Your task to perform on an android device: Open Android settings Image 0: 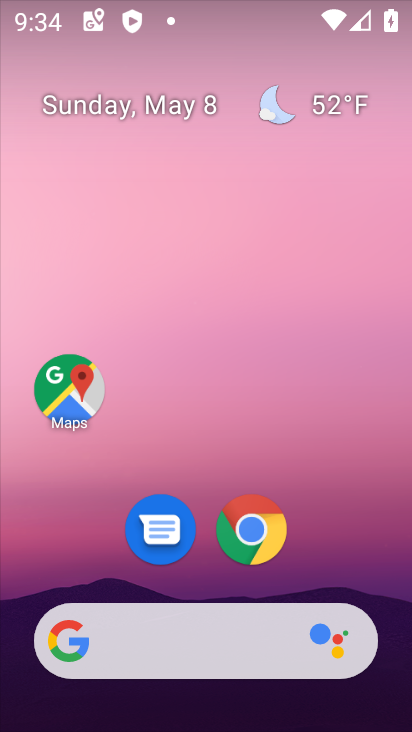
Step 0: drag from (372, 570) to (374, 121)
Your task to perform on an android device: Open Android settings Image 1: 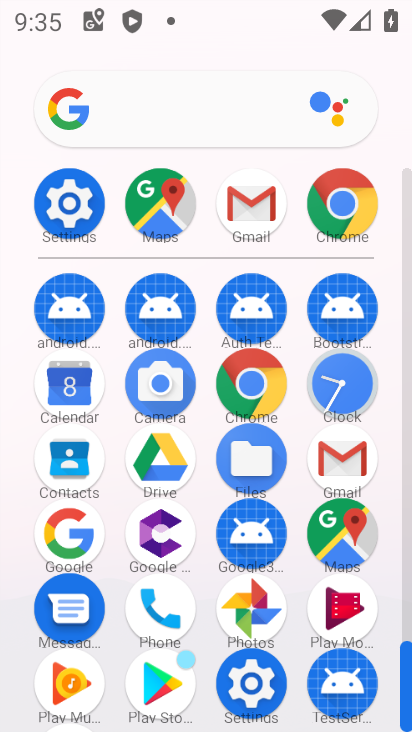
Step 1: click (88, 212)
Your task to perform on an android device: Open Android settings Image 2: 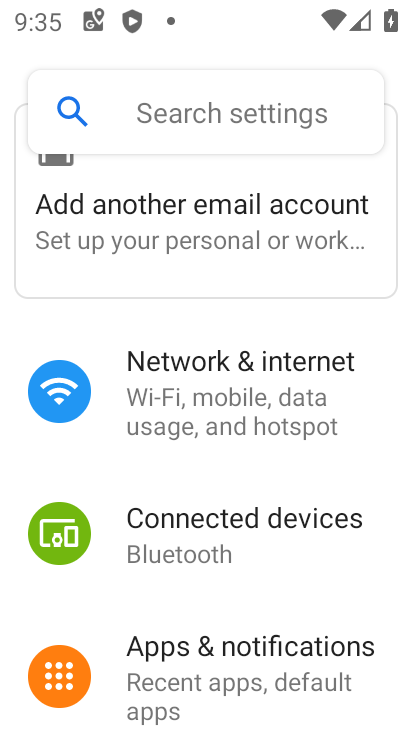
Step 2: task complete